Your task to perform on an android device: Check the news Image 0: 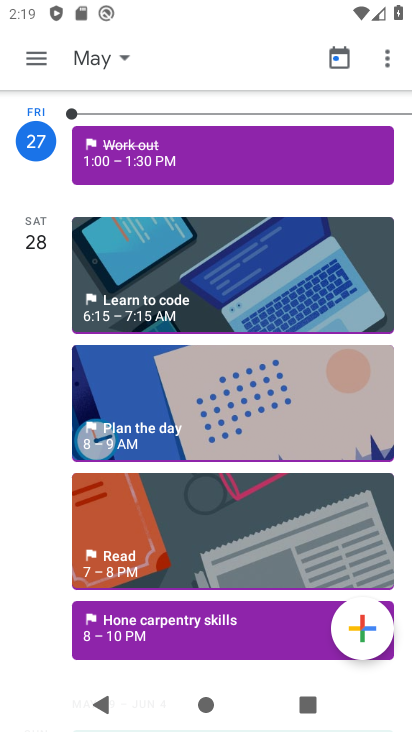
Step 0: press home button
Your task to perform on an android device: Check the news Image 1: 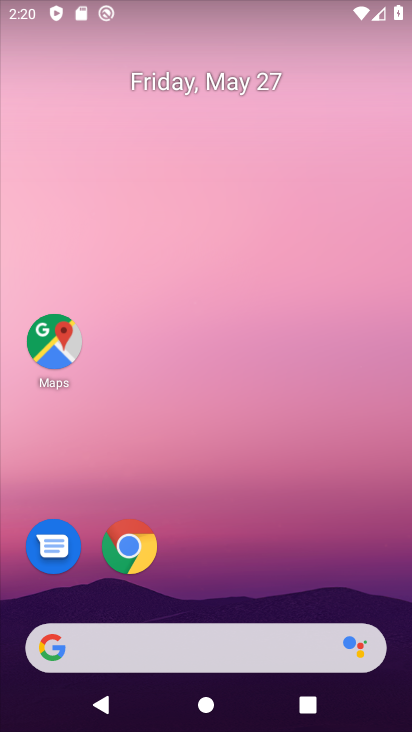
Step 1: click (125, 544)
Your task to perform on an android device: Check the news Image 2: 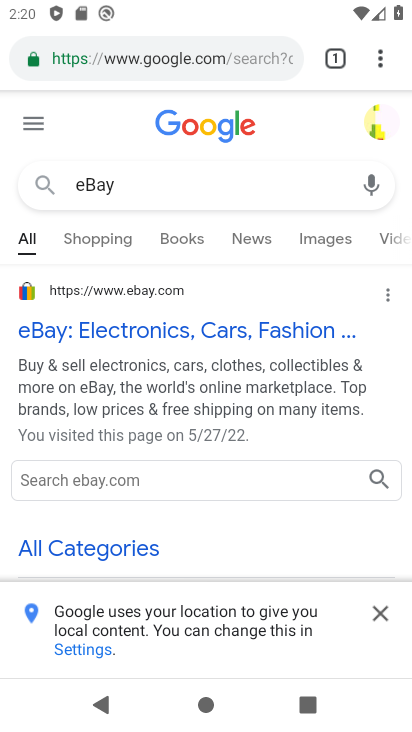
Step 2: click (146, 52)
Your task to perform on an android device: Check the news Image 3: 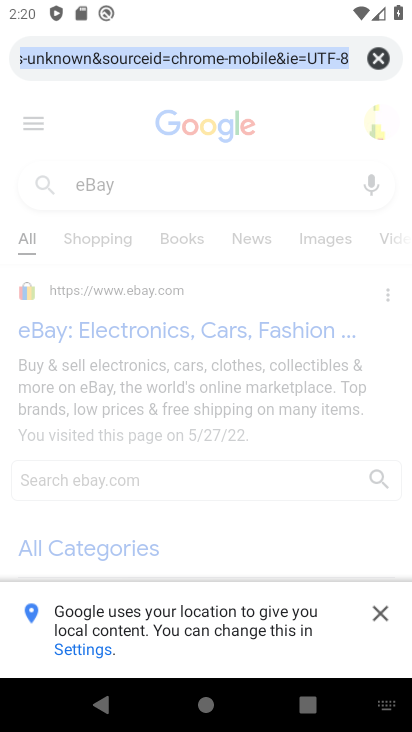
Step 3: type "news"
Your task to perform on an android device: Check the news Image 4: 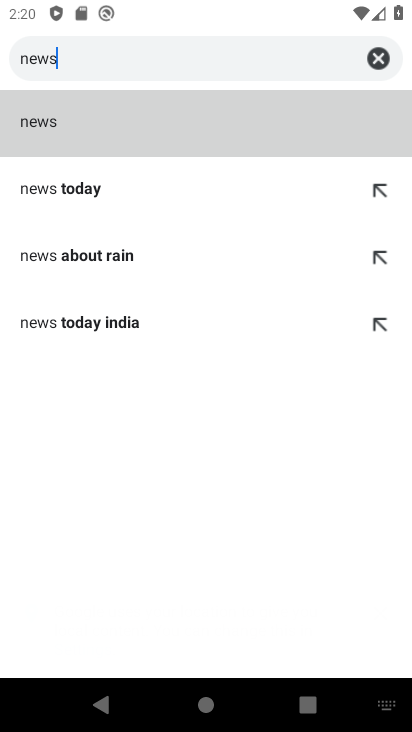
Step 4: click (98, 135)
Your task to perform on an android device: Check the news Image 5: 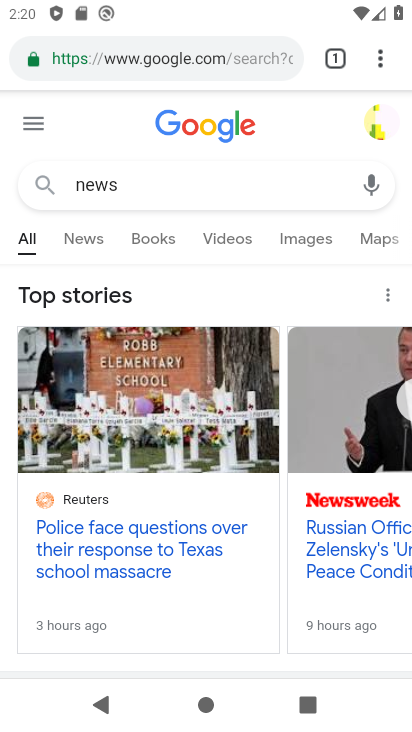
Step 5: task complete